Your task to perform on an android device: turn off location history Image 0: 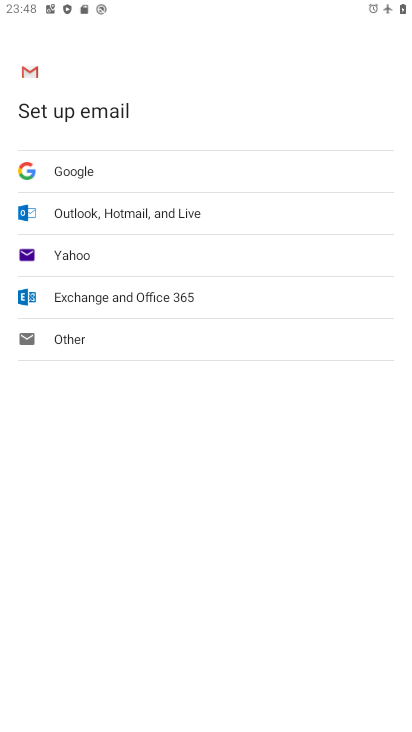
Step 0: press home button
Your task to perform on an android device: turn off location history Image 1: 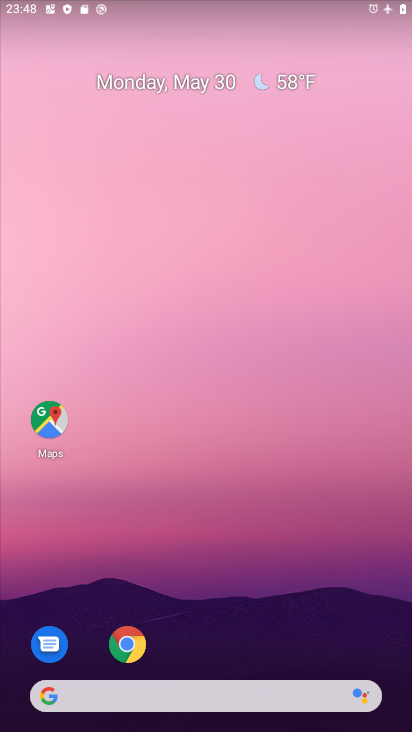
Step 1: click (50, 419)
Your task to perform on an android device: turn off location history Image 2: 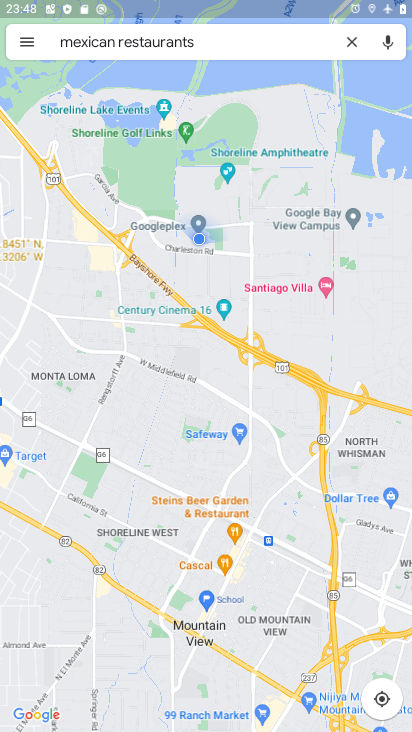
Step 2: click (22, 38)
Your task to perform on an android device: turn off location history Image 3: 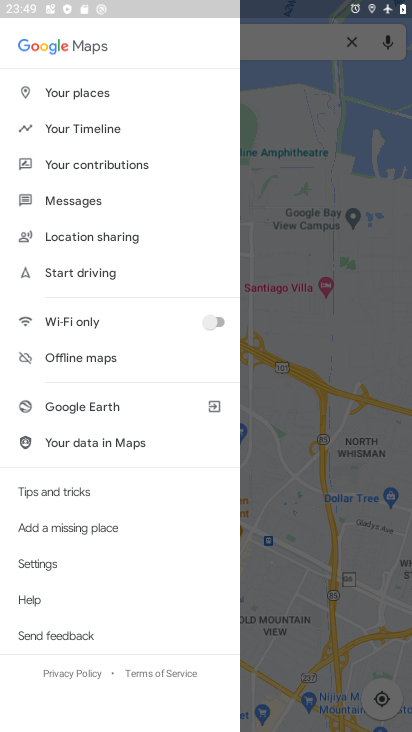
Step 3: click (40, 560)
Your task to perform on an android device: turn off location history Image 4: 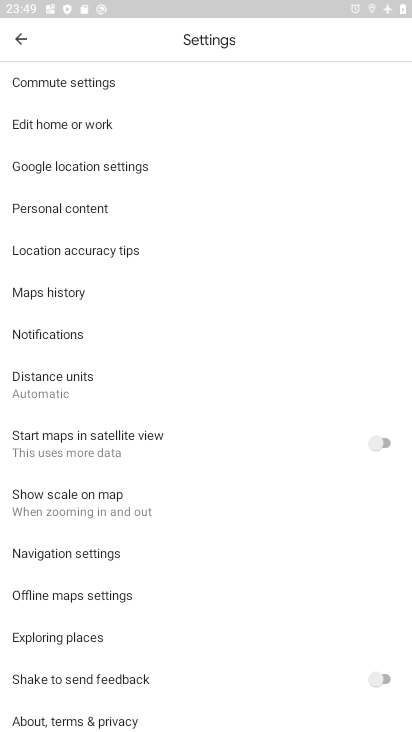
Step 4: click (73, 207)
Your task to perform on an android device: turn off location history Image 5: 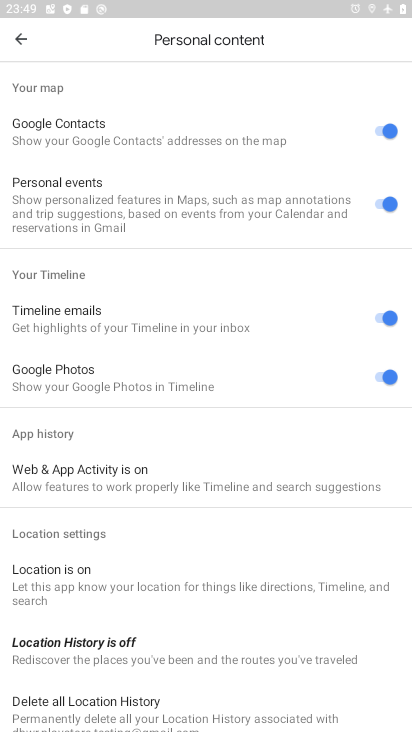
Step 5: task complete